Your task to perform on an android device: Go to notification settings Image 0: 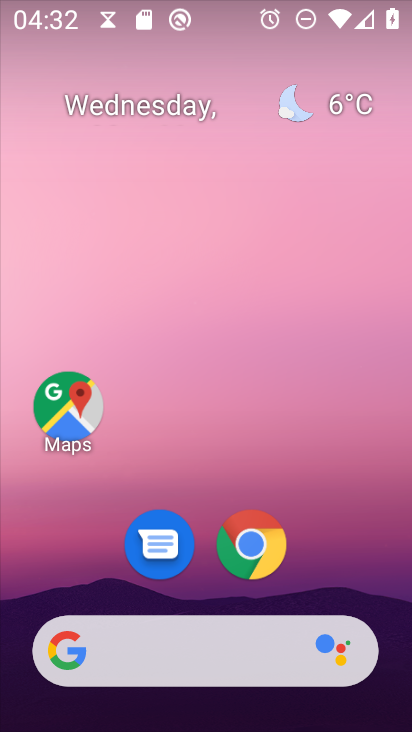
Step 0: drag from (309, 585) to (360, 56)
Your task to perform on an android device: Go to notification settings Image 1: 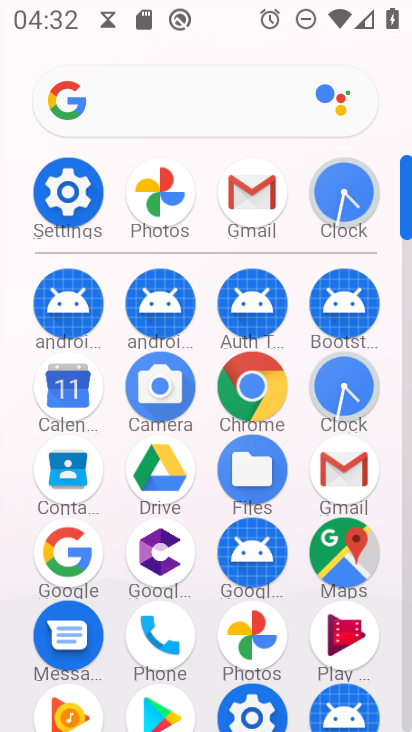
Step 1: click (68, 203)
Your task to perform on an android device: Go to notification settings Image 2: 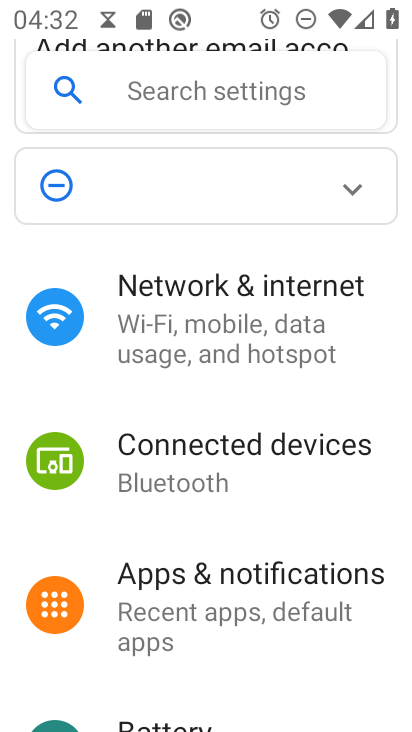
Step 2: click (211, 617)
Your task to perform on an android device: Go to notification settings Image 3: 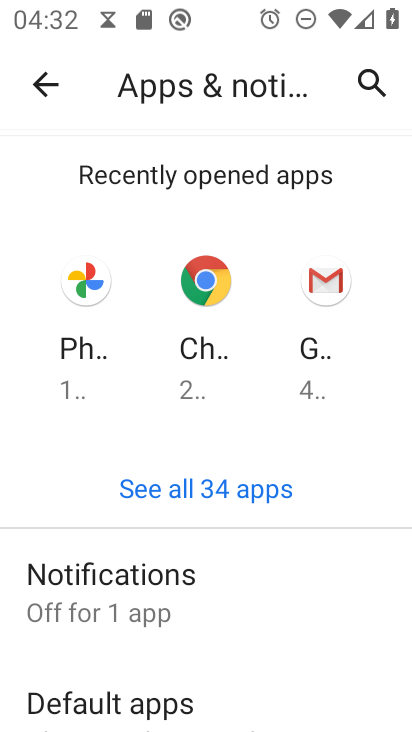
Step 3: click (224, 594)
Your task to perform on an android device: Go to notification settings Image 4: 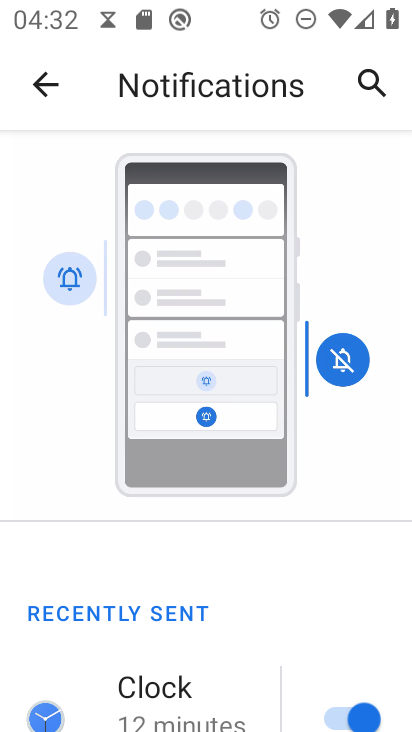
Step 4: task complete